Your task to perform on an android device: check data usage Image 0: 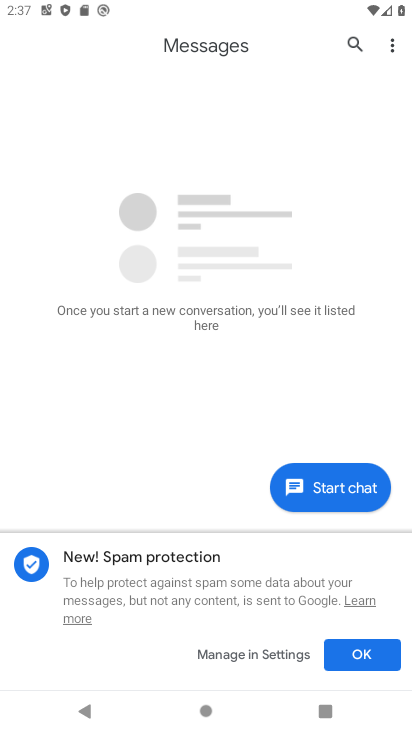
Step 0: press home button
Your task to perform on an android device: check data usage Image 1: 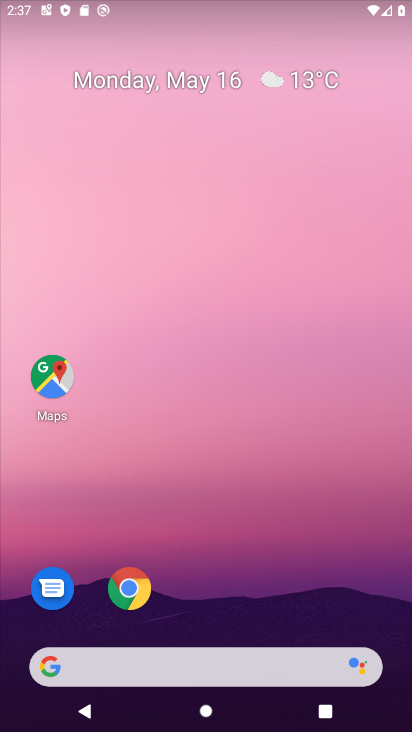
Step 1: drag from (295, 682) to (293, 38)
Your task to perform on an android device: check data usage Image 2: 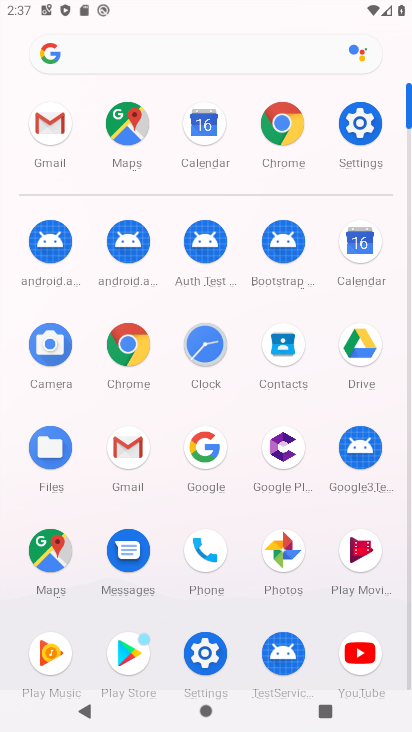
Step 2: click (360, 129)
Your task to perform on an android device: check data usage Image 3: 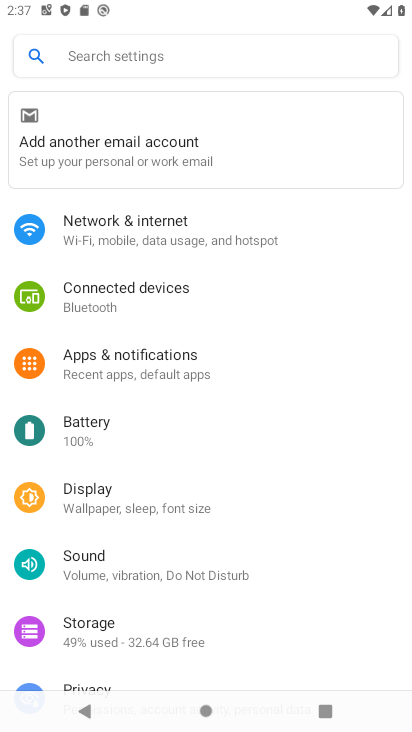
Step 3: drag from (165, 614) to (180, 698)
Your task to perform on an android device: check data usage Image 4: 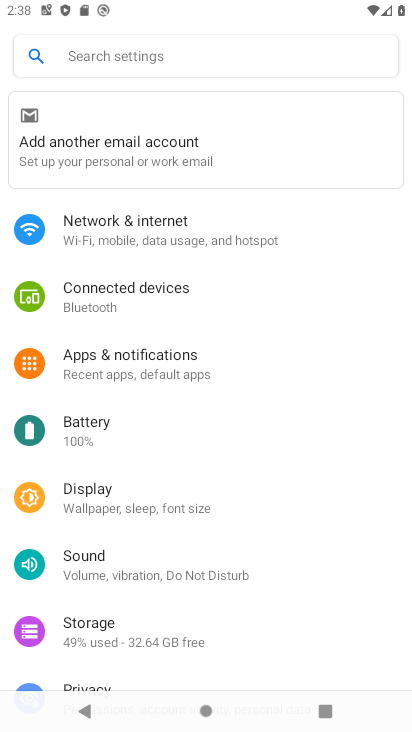
Step 4: click (181, 232)
Your task to perform on an android device: check data usage Image 5: 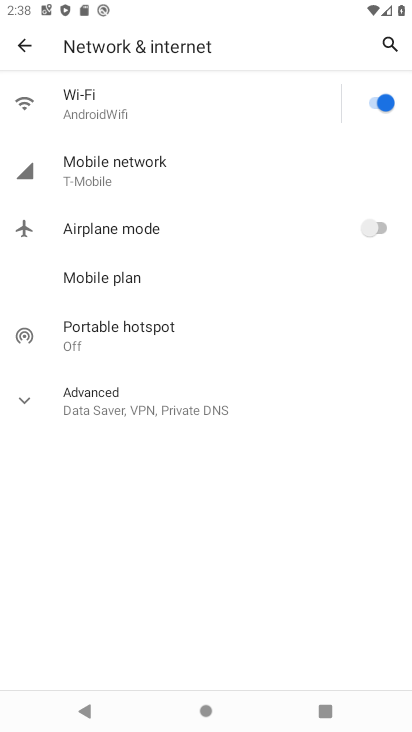
Step 5: click (161, 160)
Your task to perform on an android device: check data usage Image 6: 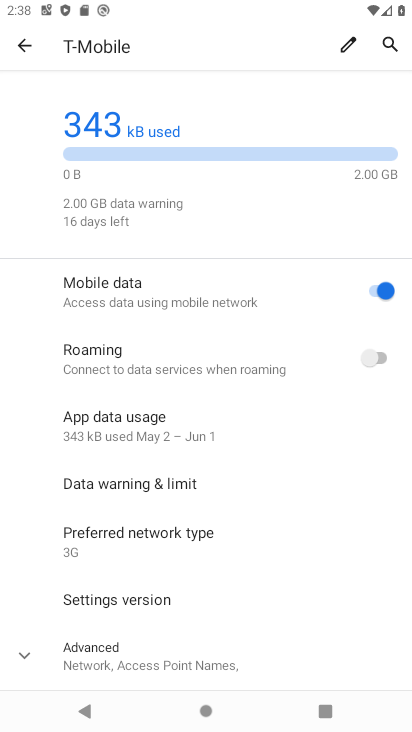
Step 6: task complete